Your task to perform on an android device: Go to eBay Image 0: 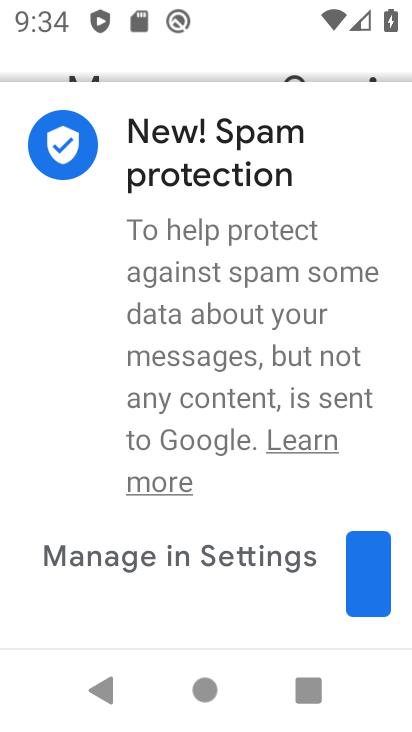
Step 0: press home button
Your task to perform on an android device: Go to eBay Image 1: 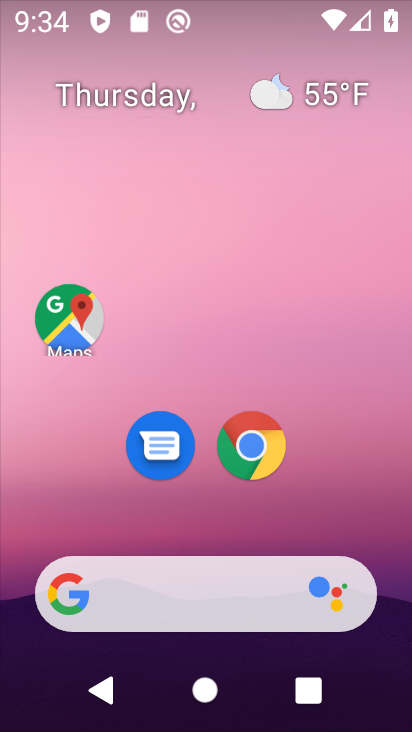
Step 1: drag from (213, 549) to (229, 159)
Your task to perform on an android device: Go to eBay Image 2: 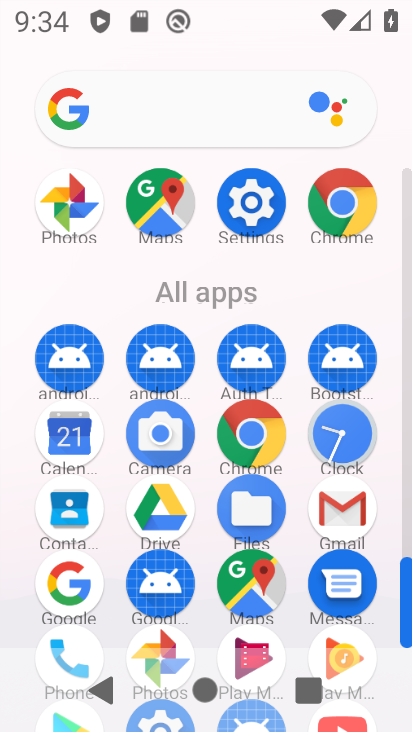
Step 2: click (350, 214)
Your task to perform on an android device: Go to eBay Image 3: 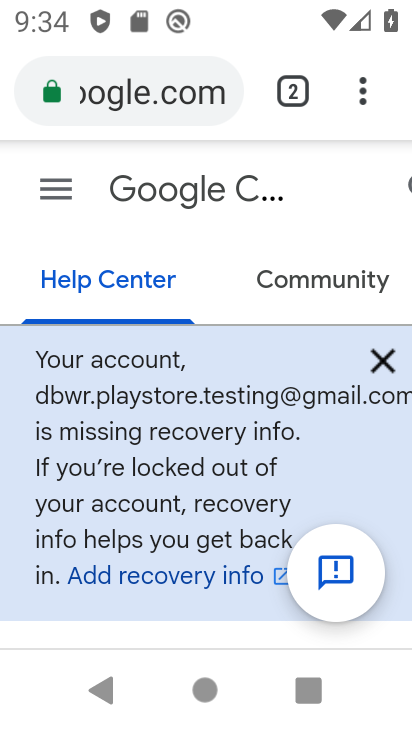
Step 3: click (374, 364)
Your task to perform on an android device: Go to eBay Image 4: 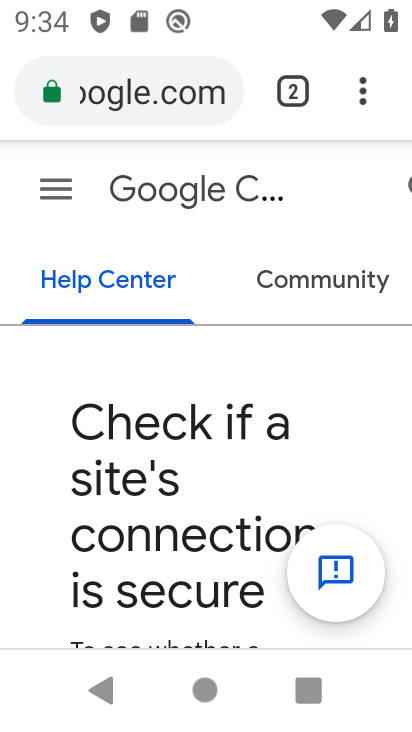
Step 4: click (299, 98)
Your task to perform on an android device: Go to eBay Image 5: 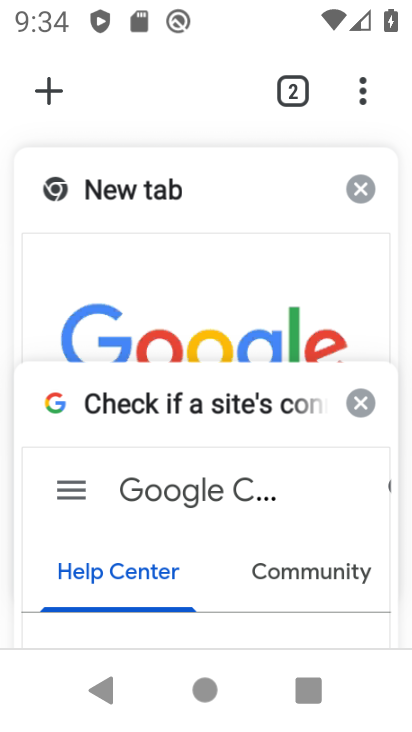
Step 5: click (368, 412)
Your task to perform on an android device: Go to eBay Image 6: 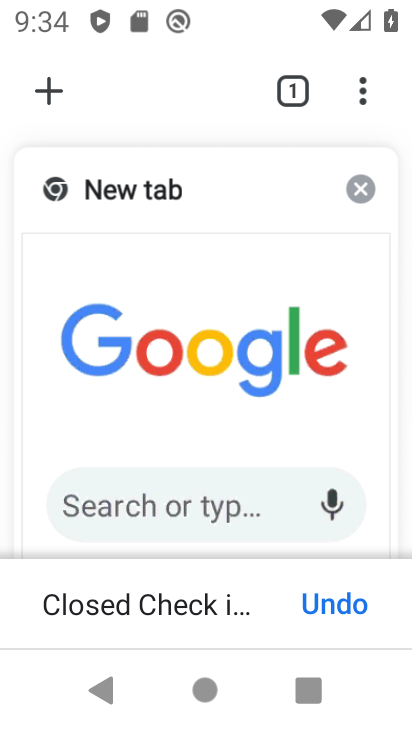
Step 6: click (360, 196)
Your task to perform on an android device: Go to eBay Image 7: 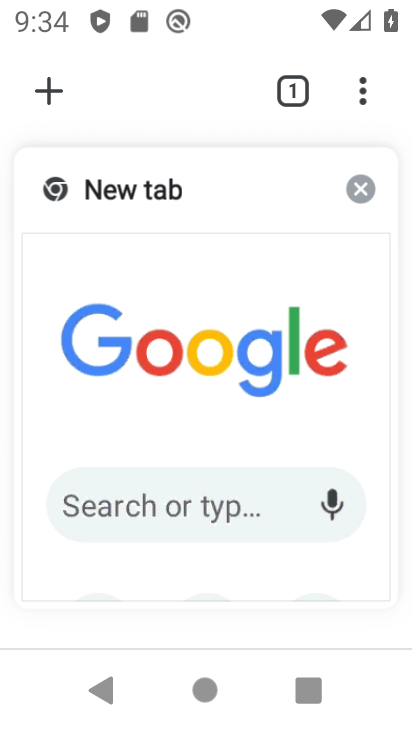
Step 7: click (368, 187)
Your task to perform on an android device: Go to eBay Image 8: 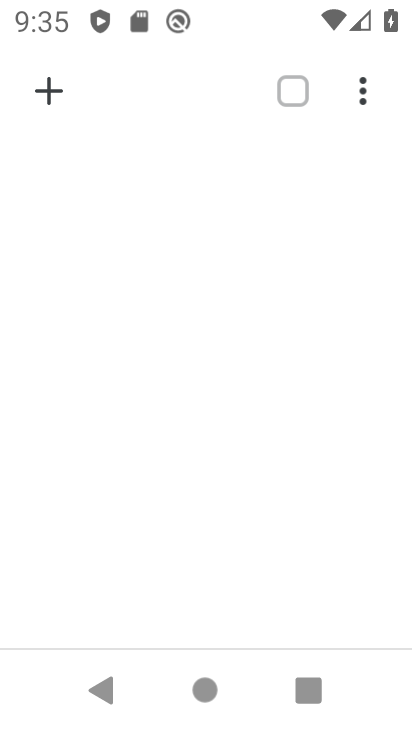
Step 8: click (53, 92)
Your task to perform on an android device: Go to eBay Image 9: 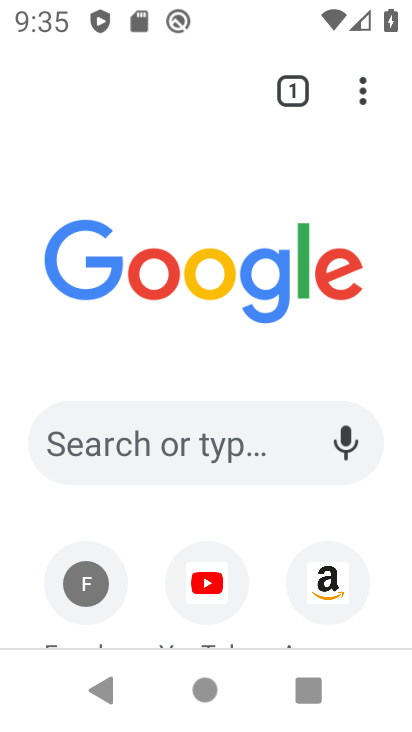
Step 9: drag from (258, 612) to (259, 248)
Your task to perform on an android device: Go to eBay Image 10: 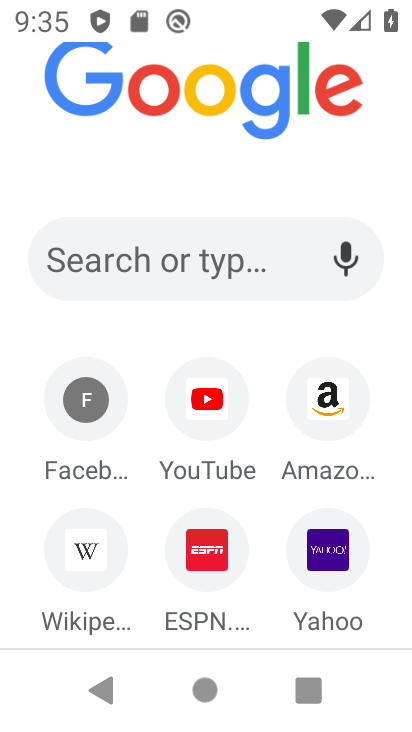
Step 10: drag from (264, 607) to (288, 270)
Your task to perform on an android device: Go to eBay Image 11: 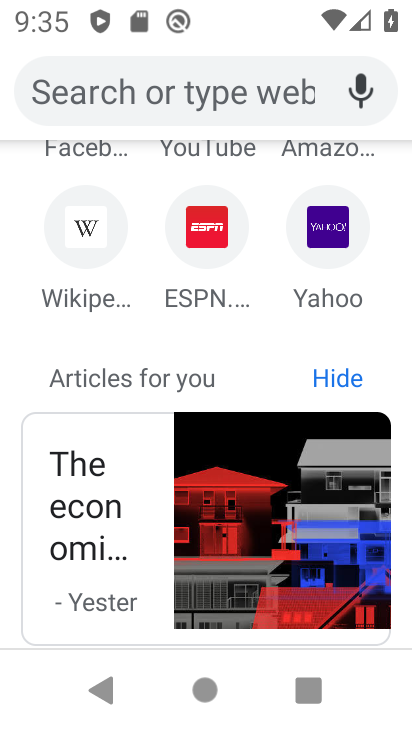
Step 11: click (141, 93)
Your task to perform on an android device: Go to eBay Image 12: 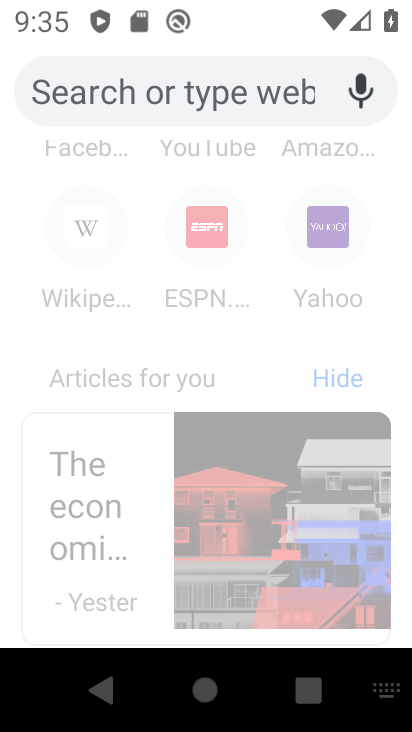
Step 12: type "ebay"
Your task to perform on an android device: Go to eBay Image 13: 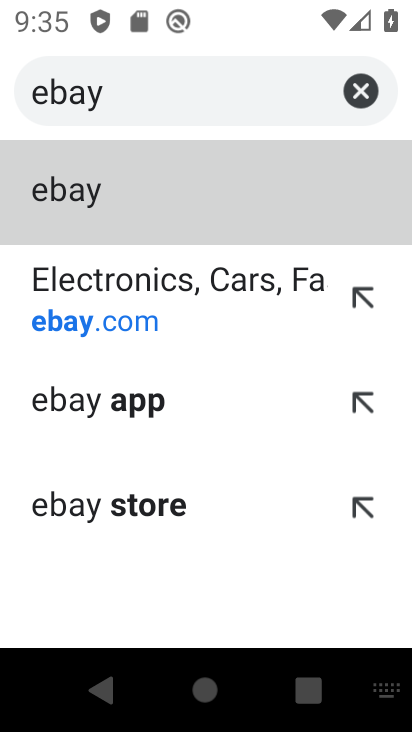
Step 13: click (131, 403)
Your task to perform on an android device: Go to eBay Image 14: 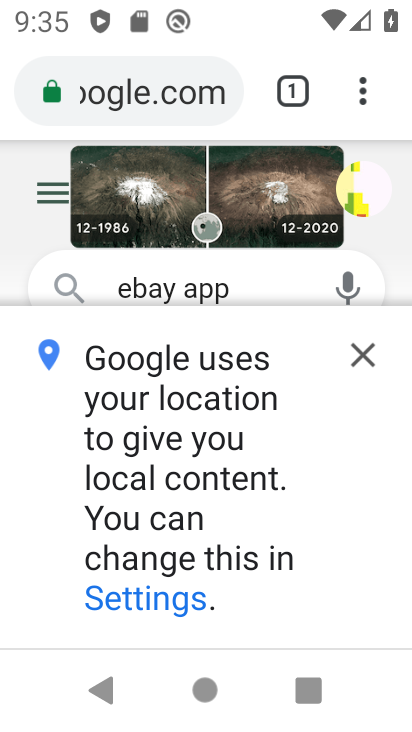
Step 14: click (364, 360)
Your task to perform on an android device: Go to eBay Image 15: 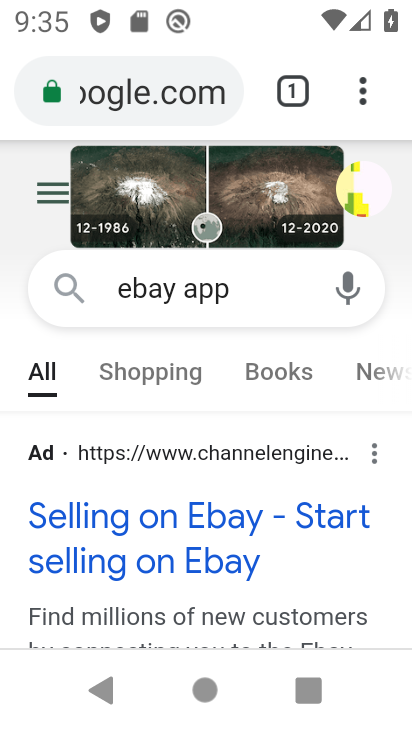
Step 15: click (237, 543)
Your task to perform on an android device: Go to eBay Image 16: 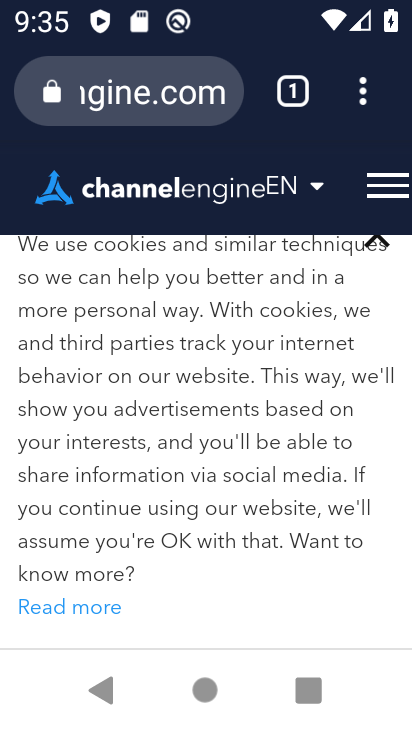
Step 16: task complete